Your task to perform on an android device: turn on notifications settings in the gmail app Image 0: 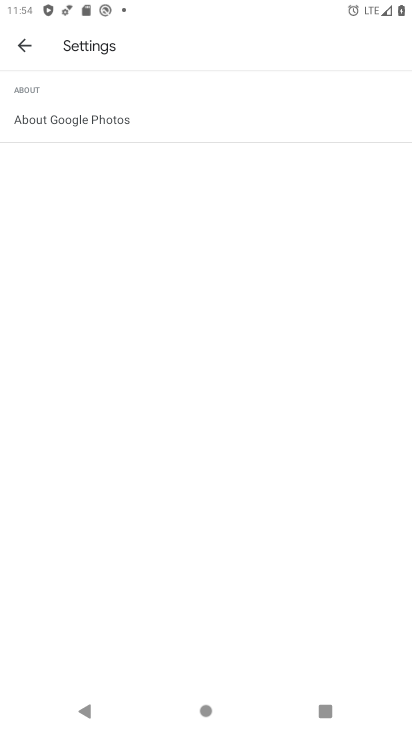
Step 0: press home button
Your task to perform on an android device: turn on notifications settings in the gmail app Image 1: 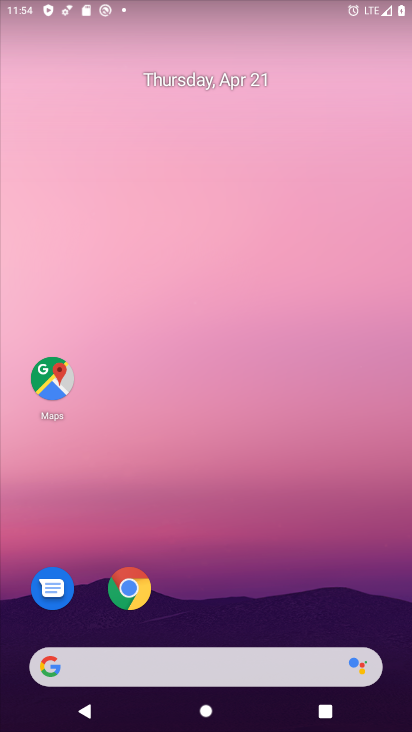
Step 1: drag from (249, 693) to (306, 136)
Your task to perform on an android device: turn on notifications settings in the gmail app Image 2: 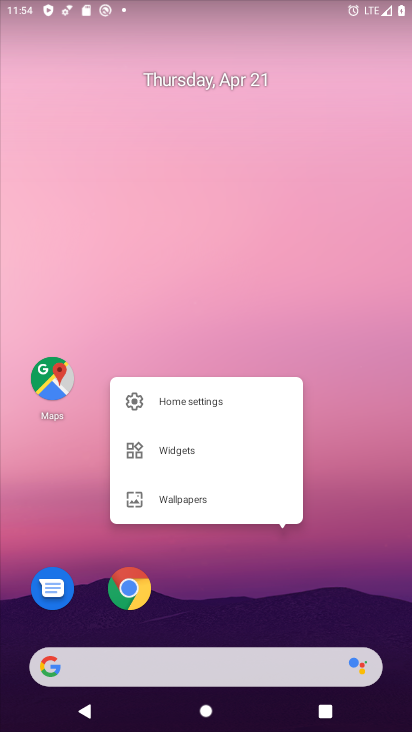
Step 2: click (305, 137)
Your task to perform on an android device: turn on notifications settings in the gmail app Image 3: 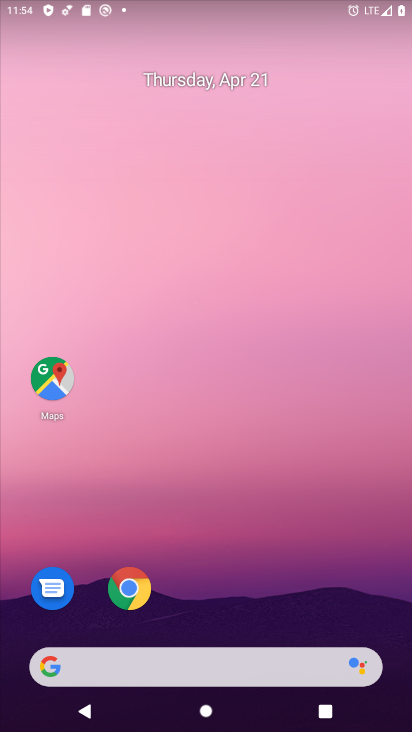
Step 3: drag from (190, 684) to (308, 217)
Your task to perform on an android device: turn on notifications settings in the gmail app Image 4: 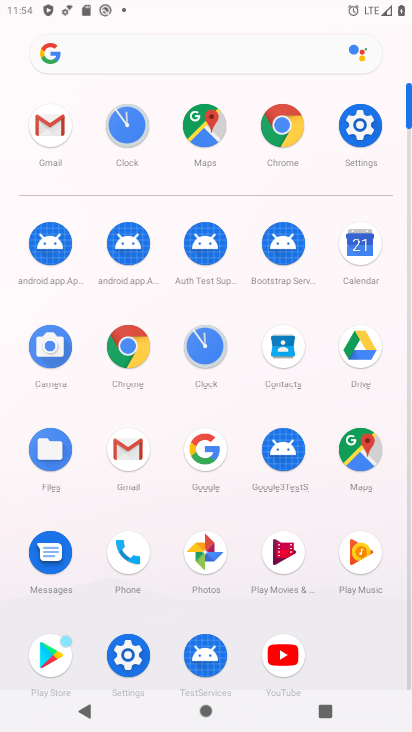
Step 4: click (52, 146)
Your task to perform on an android device: turn on notifications settings in the gmail app Image 5: 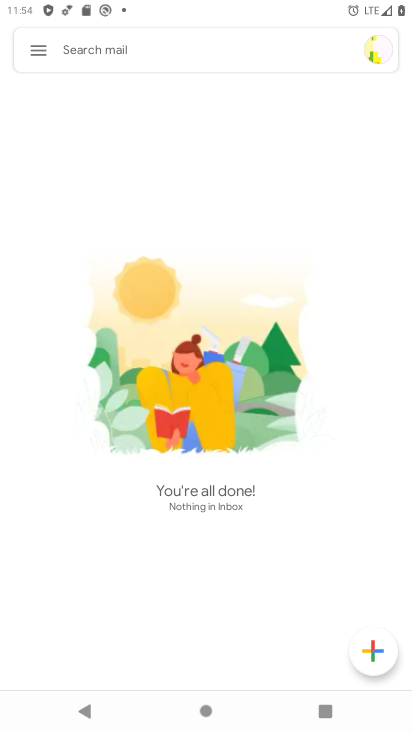
Step 5: click (33, 55)
Your task to perform on an android device: turn on notifications settings in the gmail app Image 6: 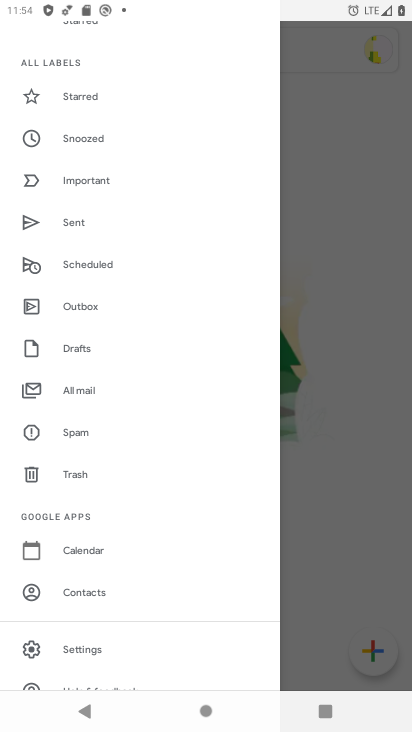
Step 6: click (76, 650)
Your task to perform on an android device: turn on notifications settings in the gmail app Image 7: 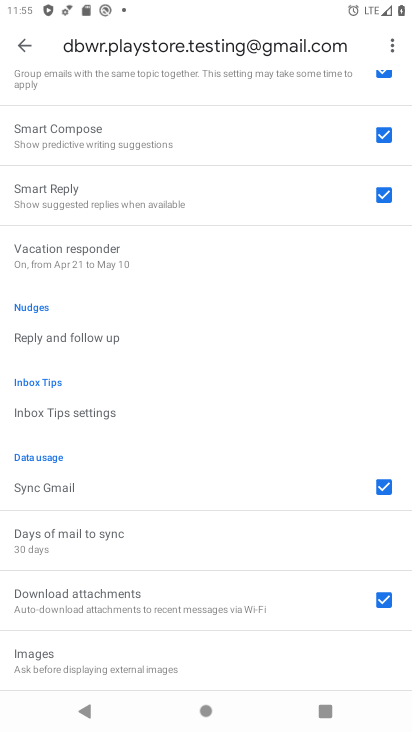
Step 7: drag from (142, 353) to (204, 572)
Your task to perform on an android device: turn on notifications settings in the gmail app Image 8: 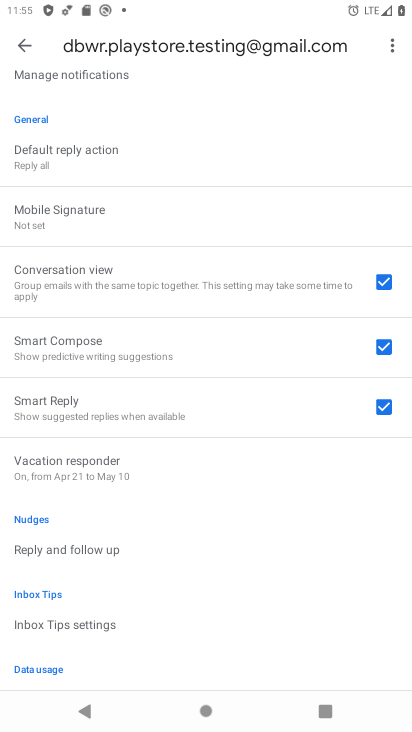
Step 8: drag from (172, 251) to (192, 556)
Your task to perform on an android device: turn on notifications settings in the gmail app Image 9: 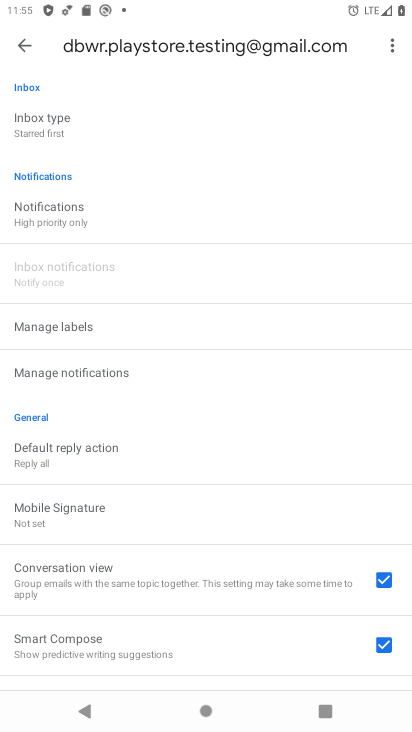
Step 9: click (82, 216)
Your task to perform on an android device: turn on notifications settings in the gmail app Image 10: 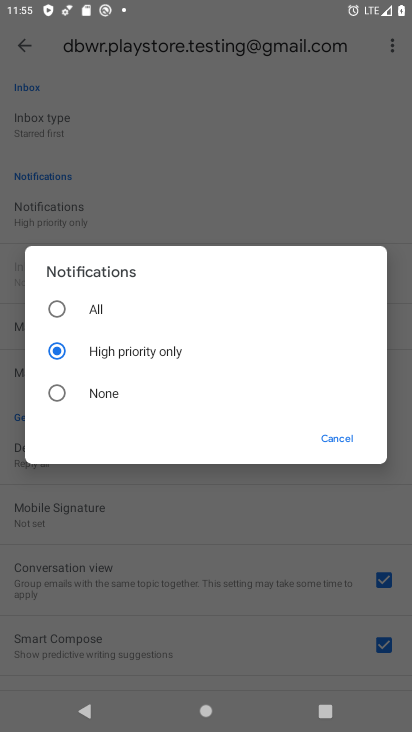
Step 10: click (123, 312)
Your task to perform on an android device: turn on notifications settings in the gmail app Image 11: 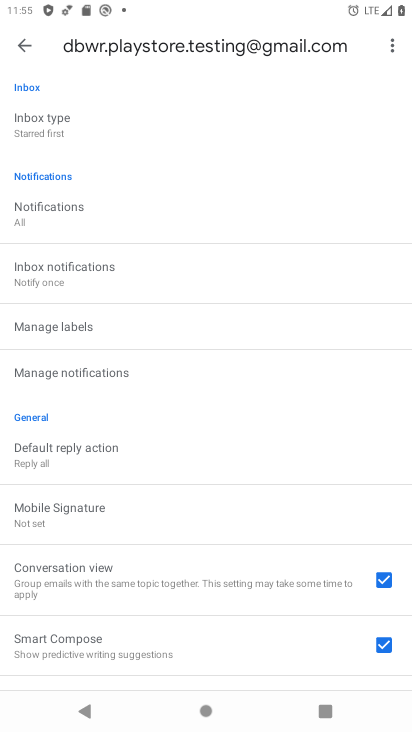
Step 11: task complete